Your task to perform on an android device: change text size in settings app Image 0: 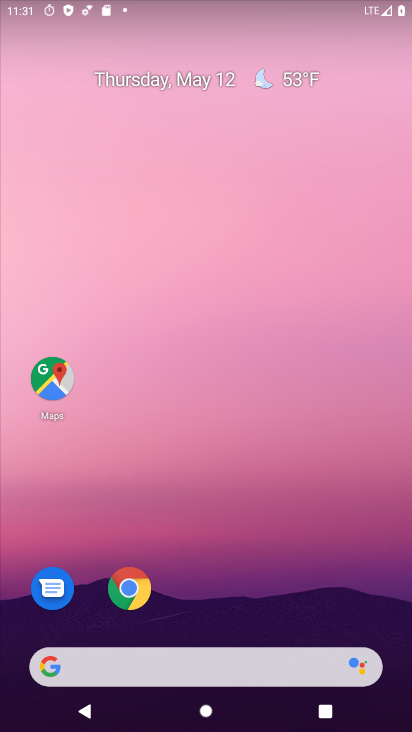
Step 0: drag from (267, 616) to (267, 182)
Your task to perform on an android device: change text size in settings app Image 1: 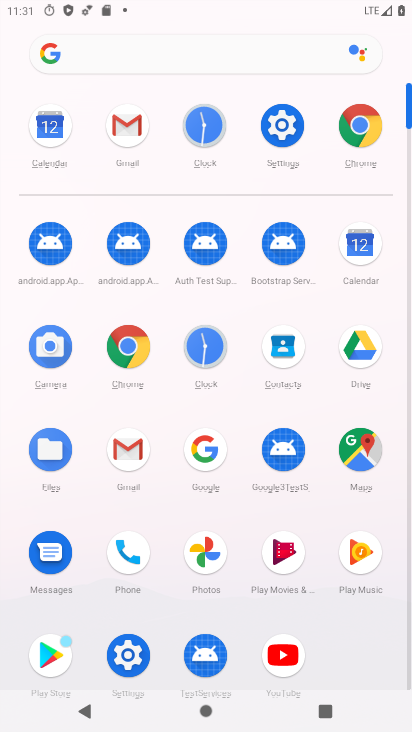
Step 1: click (277, 135)
Your task to perform on an android device: change text size in settings app Image 2: 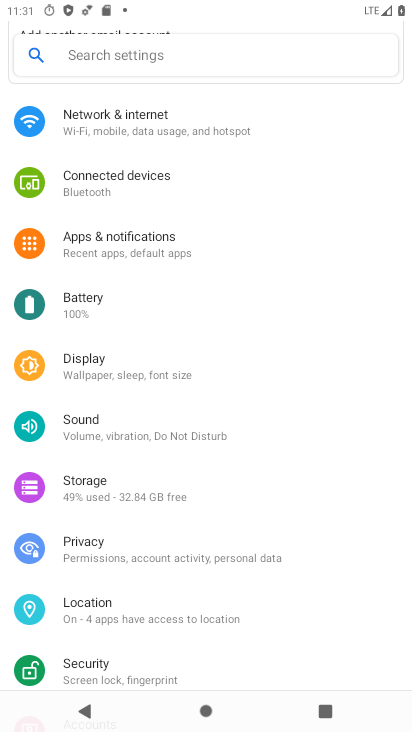
Step 2: drag from (120, 605) to (143, 105)
Your task to perform on an android device: change text size in settings app Image 3: 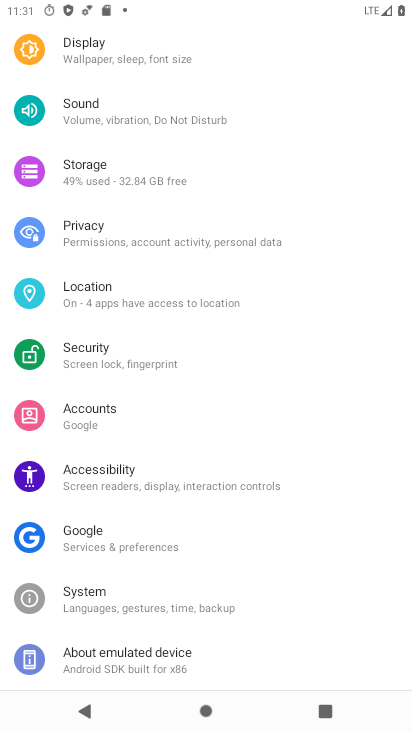
Step 3: drag from (152, 269) to (171, 551)
Your task to perform on an android device: change text size in settings app Image 4: 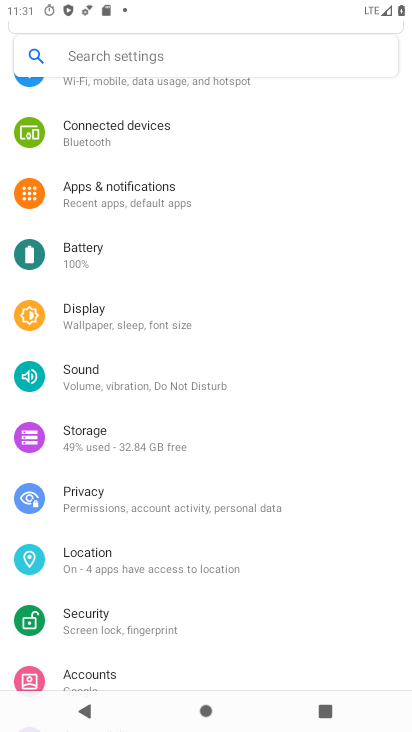
Step 4: click (167, 321)
Your task to perform on an android device: change text size in settings app Image 5: 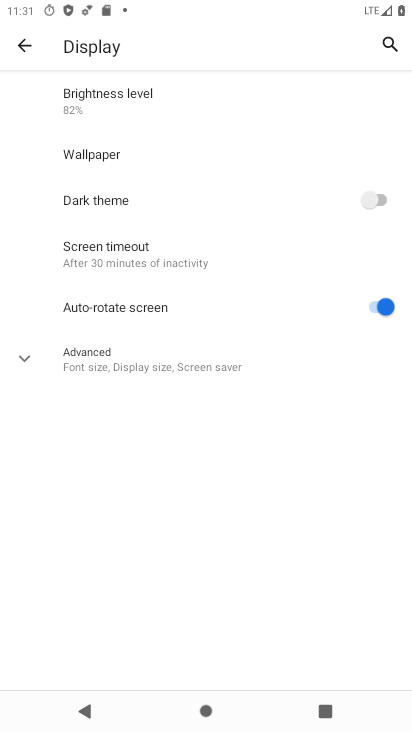
Step 5: click (133, 360)
Your task to perform on an android device: change text size in settings app Image 6: 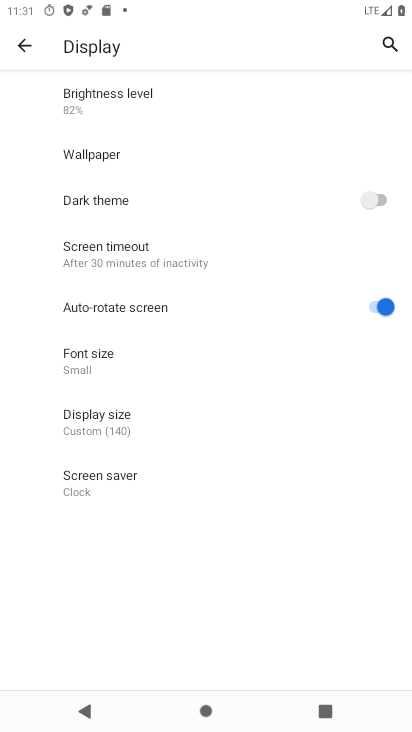
Step 6: click (99, 368)
Your task to perform on an android device: change text size in settings app Image 7: 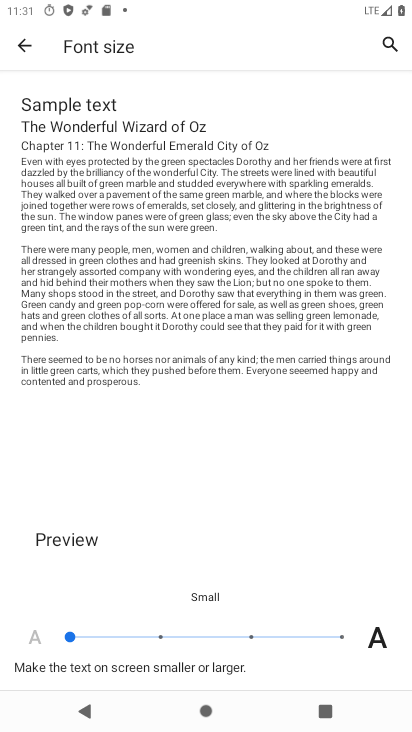
Step 7: click (122, 633)
Your task to perform on an android device: change text size in settings app Image 8: 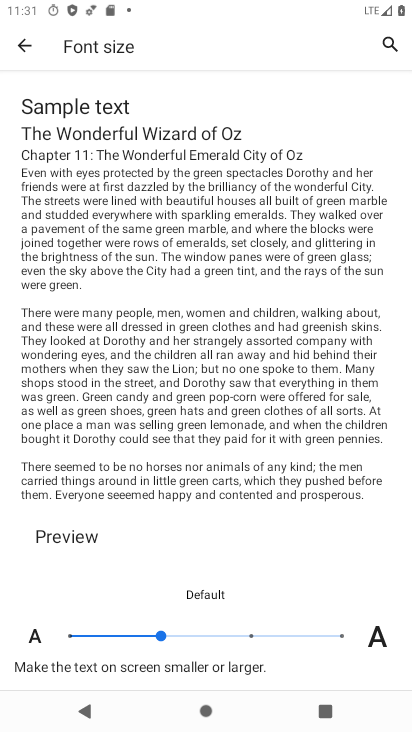
Step 8: task complete